Your task to perform on an android device: read, delete, or share a saved page in the chrome app Image 0: 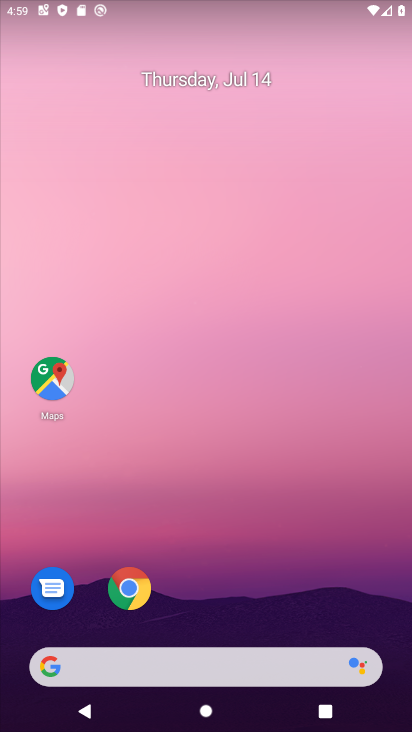
Step 0: drag from (209, 648) to (209, 253)
Your task to perform on an android device: read, delete, or share a saved page in the chrome app Image 1: 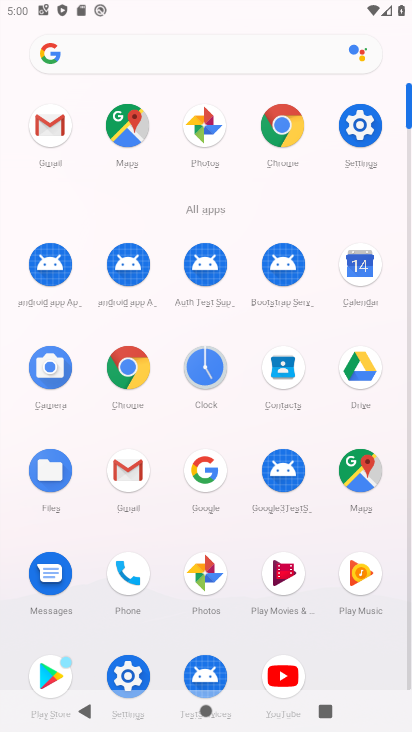
Step 1: click (280, 127)
Your task to perform on an android device: read, delete, or share a saved page in the chrome app Image 2: 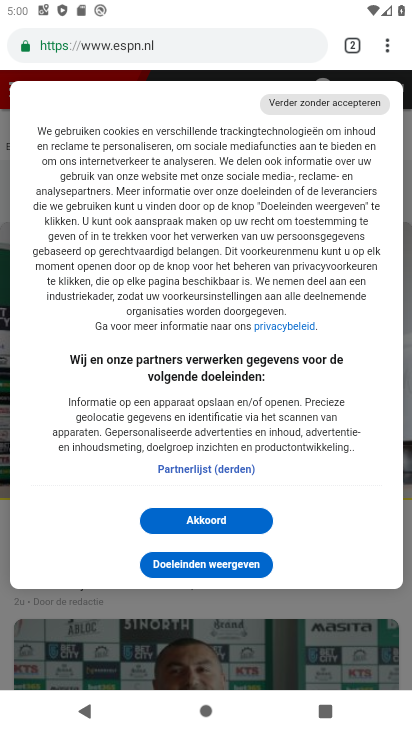
Step 2: click (388, 46)
Your task to perform on an android device: read, delete, or share a saved page in the chrome app Image 3: 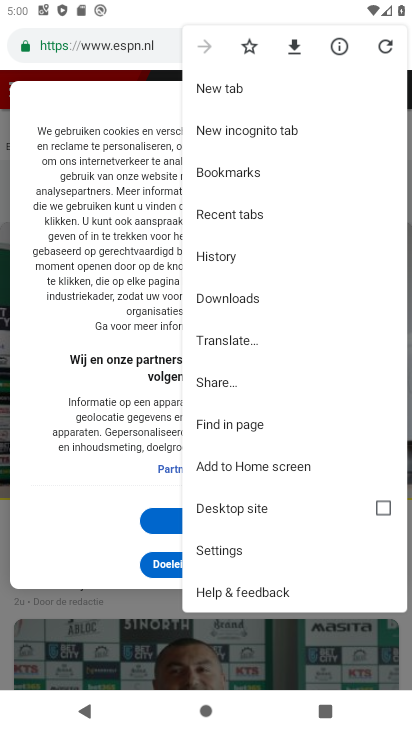
Step 3: click (214, 293)
Your task to perform on an android device: read, delete, or share a saved page in the chrome app Image 4: 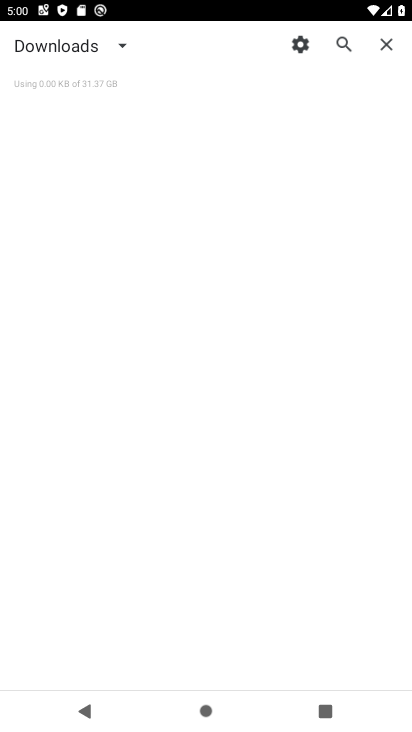
Step 4: click (125, 41)
Your task to perform on an android device: read, delete, or share a saved page in the chrome app Image 5: 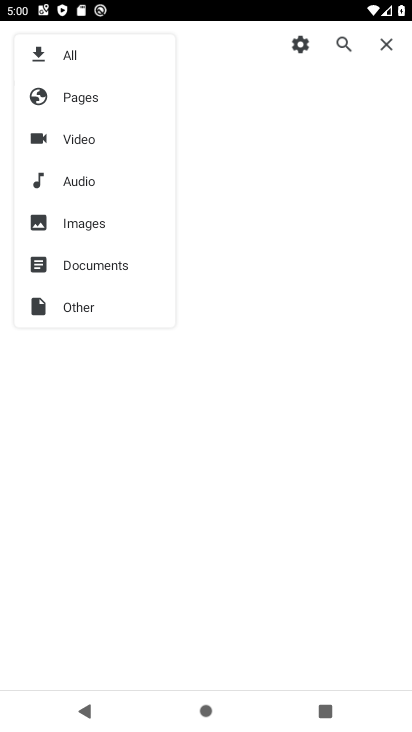
Step 5: click (84, 93)
Your task to perform on an android device: read, delete, or share a saved page in the chrome app Image 6: 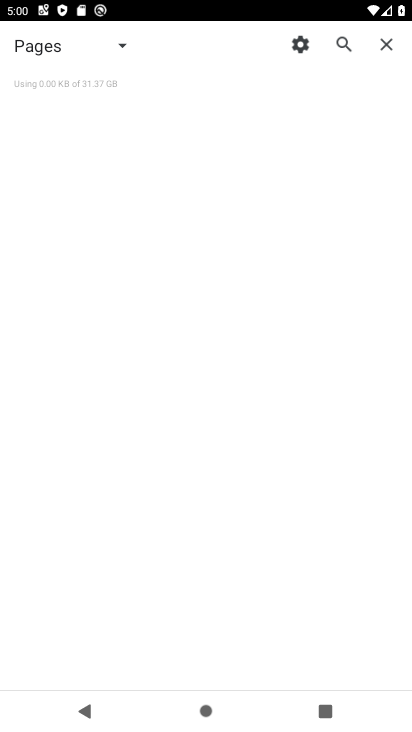
Step 6: task complete